Your task to perform on an android device: Go to Amazon Image 0: 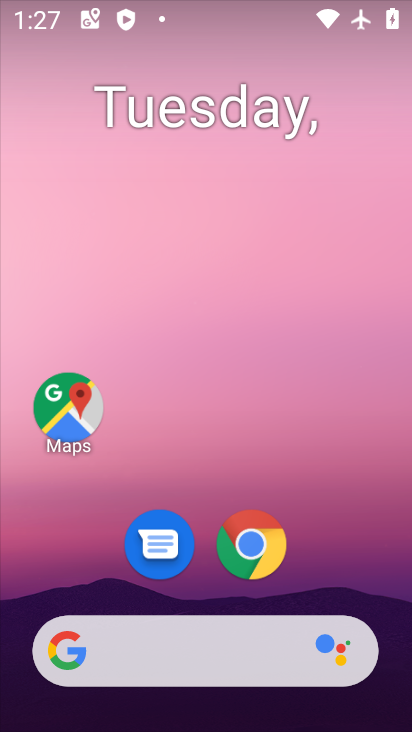
Step 0: click (253, 546)
Your task to perform on an android device: Go to Amazon Image 1: 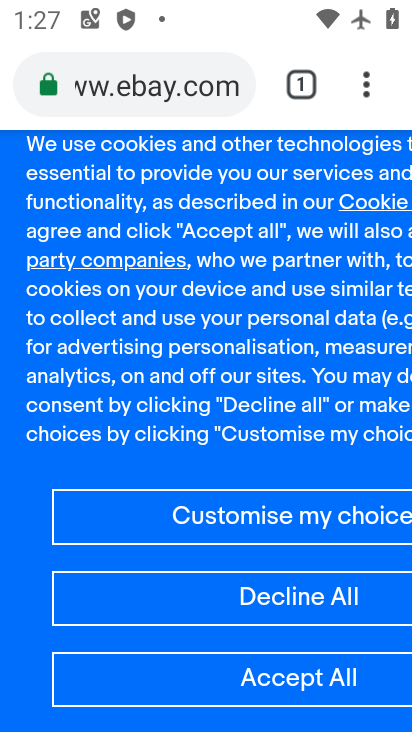
Step 1: click (241, 85)
Your task to perform on an android device: Go to Amazon Image 2: 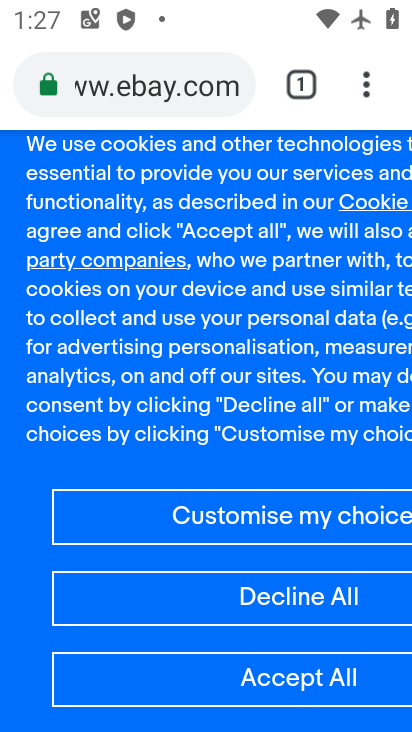
Step 2: click (244, 84)
Your task to perform on an android device: Go to Amazon Image 3: 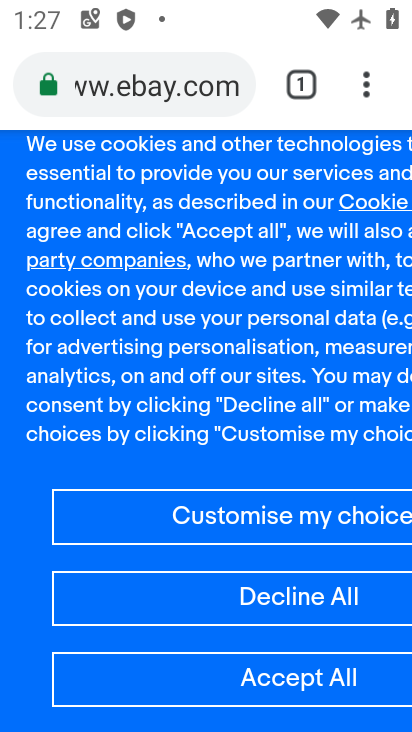
Step 3: click (251, 84)
Your task to perform on an android device: Go to Amazon Image 4: 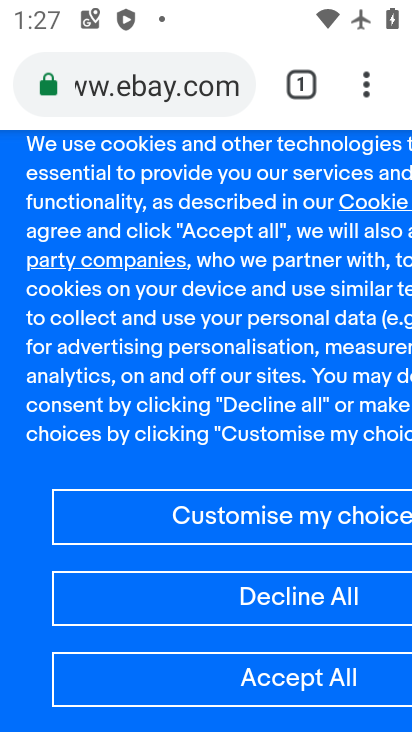
Step 4: click (207, 69)
Your task to perform on an android device: Go to Amazon Image 5: 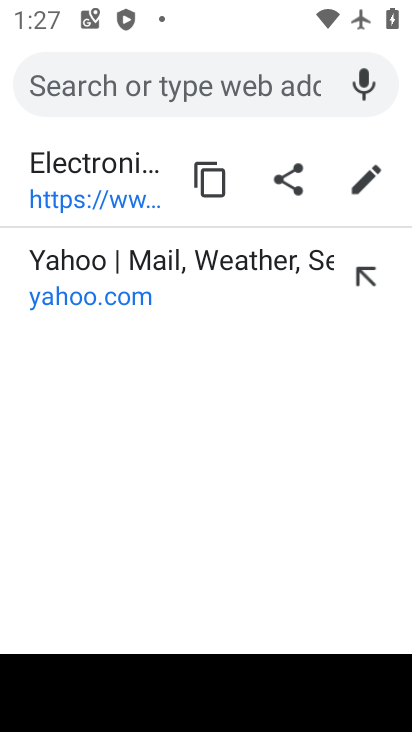
Step 5: type "amazon"
Your task to perform on an android device: Go to Amazon Image 6: 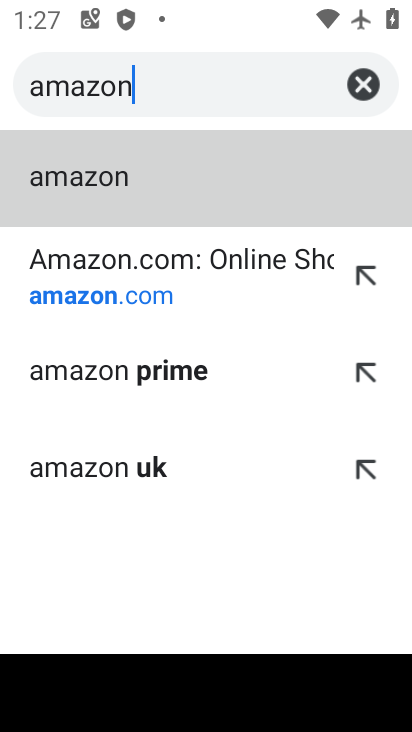
Step 6: click (68, 170)
Your task to perform on an android device: Go to Amazon Image 7: 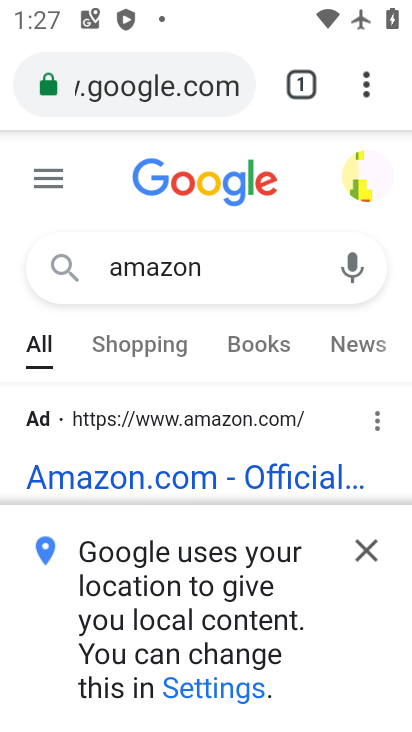
Step 7: click (182, 444)
Your task to perform on an android device: Go to Amazon Image 8: 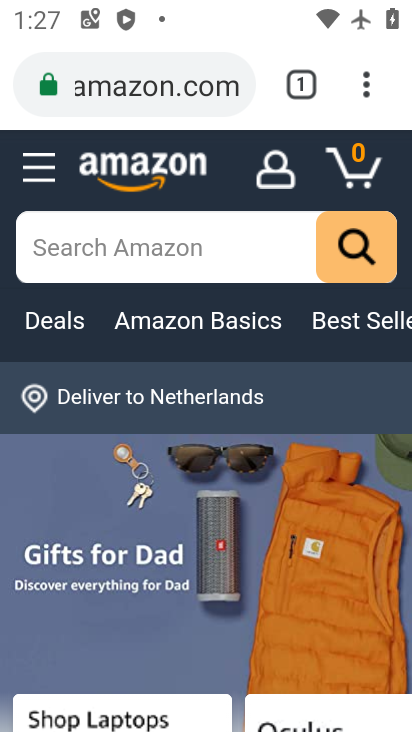
Step 8: task complete